Your task to perform on an android device: turn on javascript in the chrome app Image 0: 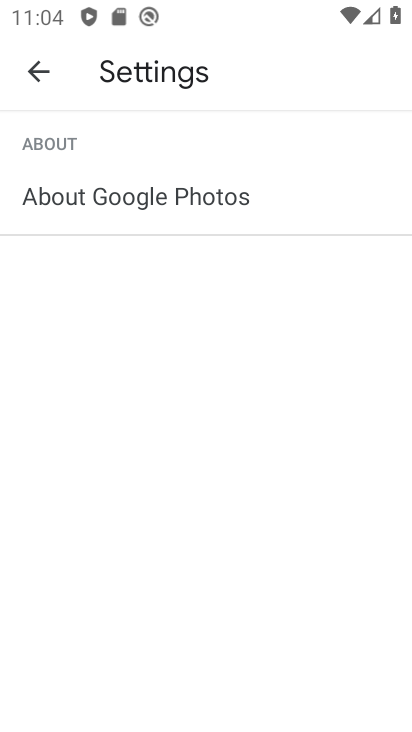
Step 0: press home button
Your task to perform on an android device: turn on javascript in the chrome app Image 1: 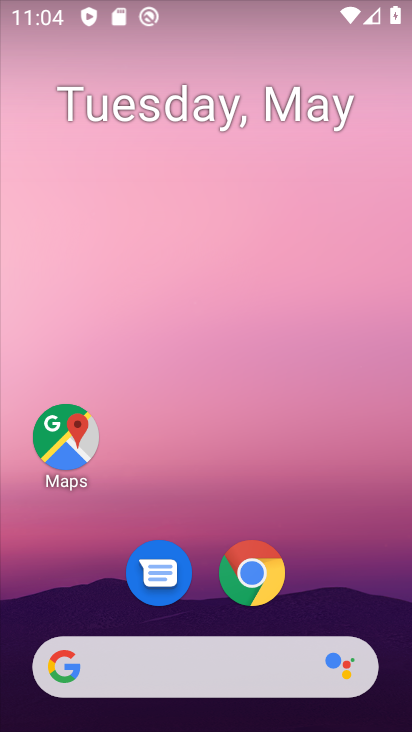
Step 1: drag from (303, 645) to (243, 185)
Your task to perform on an android device: turn on javascript in the chrome app Image 2: 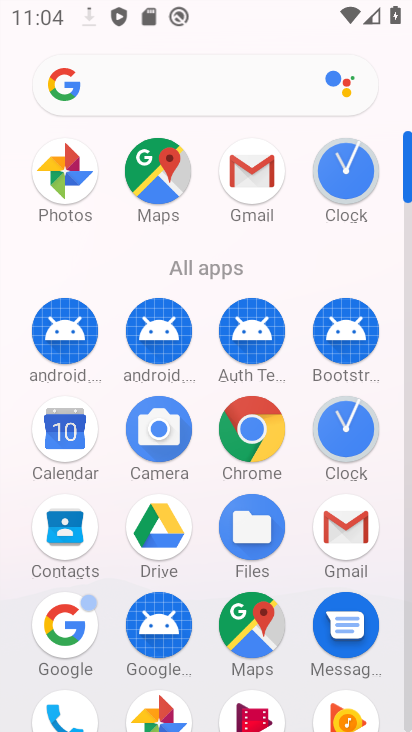
Step 2: click (255, 424)
Your task to perform on an android device: turn on javascript in the chrome app Image 3: 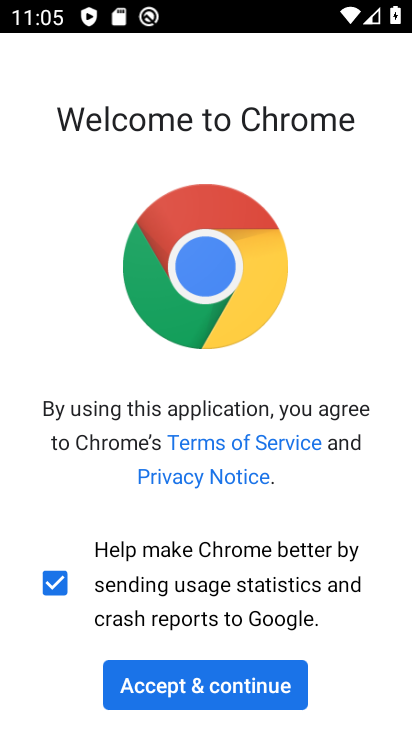
Step 3: click (179, 683)
Your task to perform on an android device: turn on javascript in the chrome app Image 4: 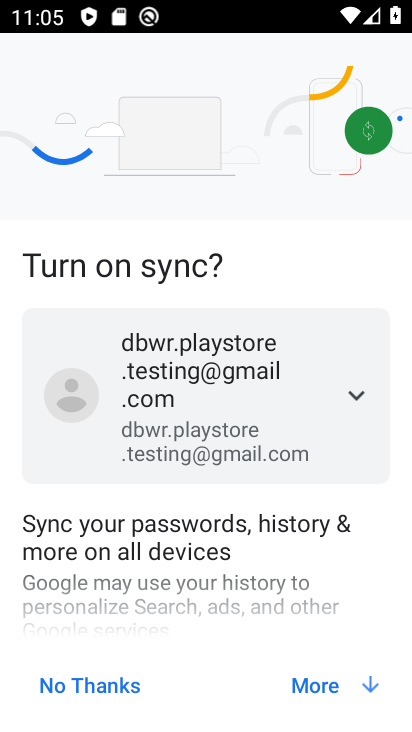
Step 4: click (362, 676)
Your task to perform on an android device: turn on javascript in the chrome app Image 5: 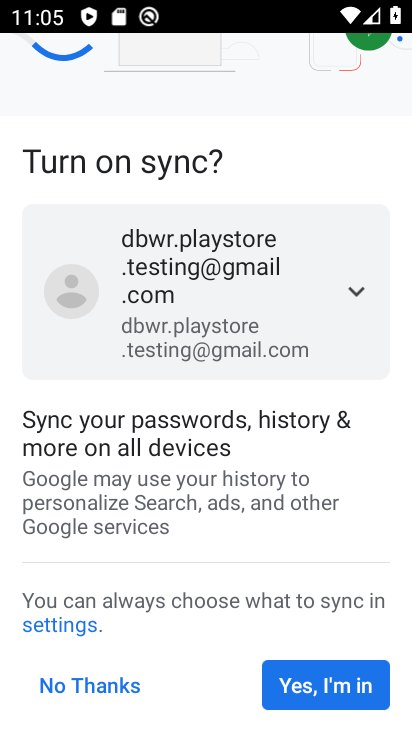
Step 5: click (346, 674)
Your task to perform on an android device: turn on javascript in the chrome app Image 6: 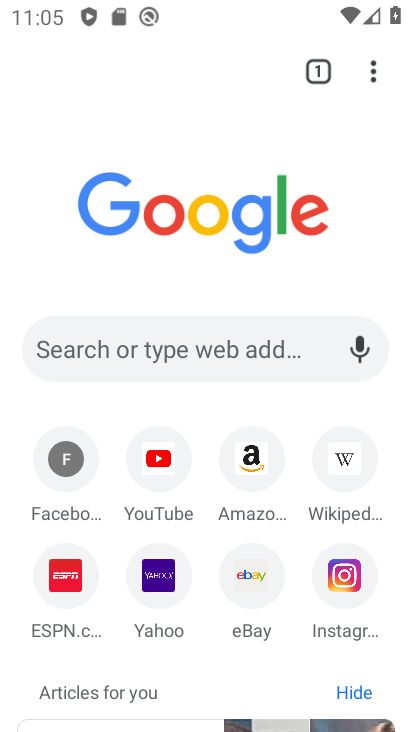
Step 6: click (370, 64)
Your task to perform on an android device: turn on javascript in the chrome app Image 7: 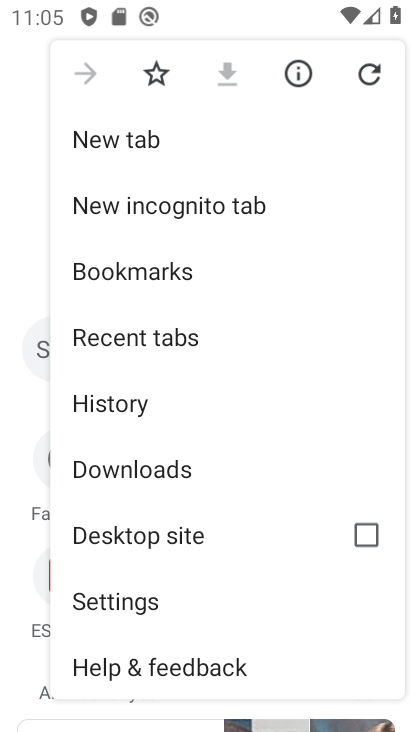
Step 7: click (135, 589)
Your task to perform on an android device: turn on javascript in the chrome app Image 8: 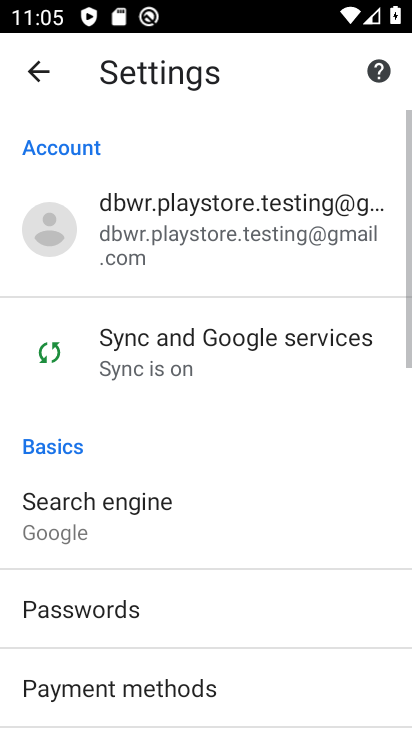
Step 8: drag from (146, 577) to (162, 330)
Your task to perform on an android device: turn on javascript in the chrome app Image 9: 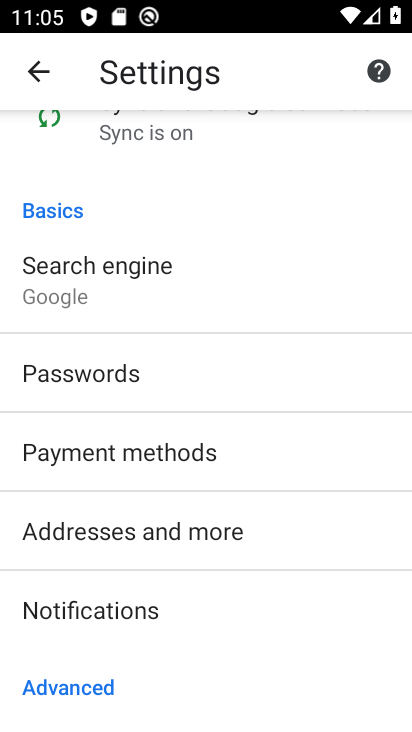
Step 9: drag from (140, 607) to (239, 237)
Your task to perform on an android device: turn on javascript in the chrome app Image 10: 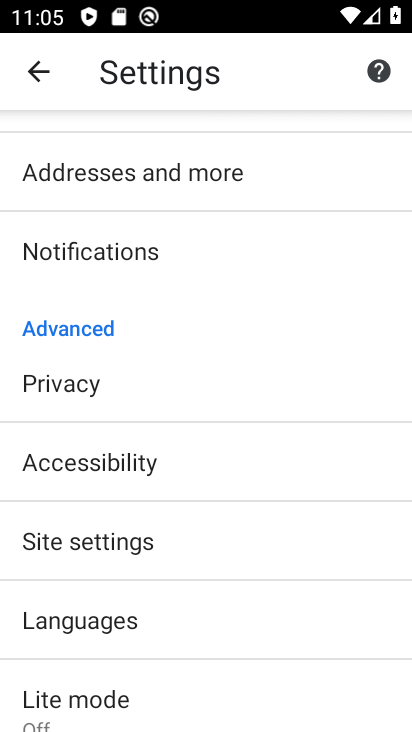
Step 10: click (129, 534)
Your task to perform on an android device: turn on javascript in the chrome app Image 11: 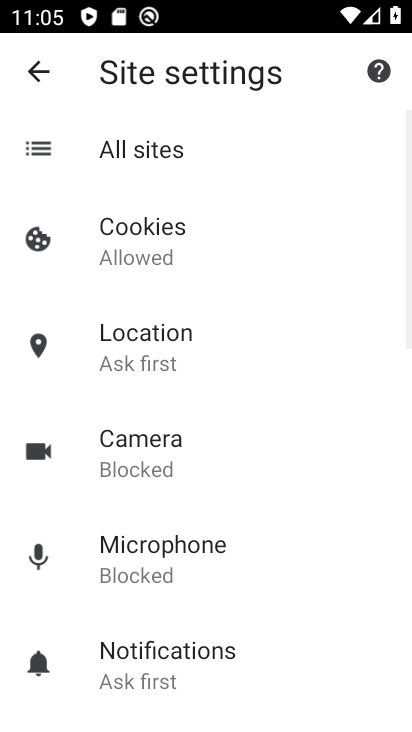
Step 11: drag from (168, 621) to (269, 260)
Your task to perform on an android device: turn on javascript in the chrome app Image 12: 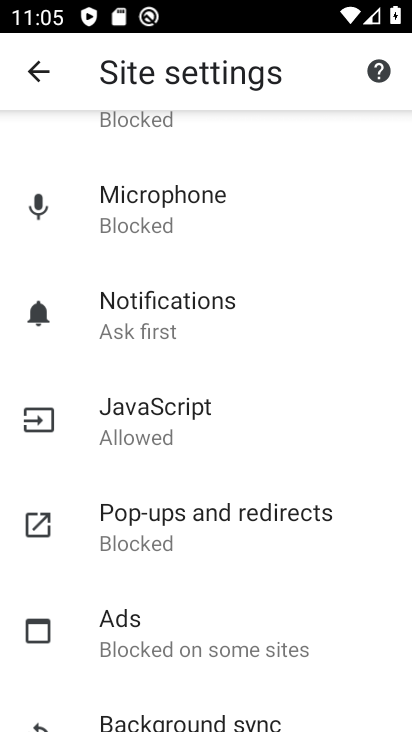
Step 12: click (190, 415)
Your task to perform on an android device: turn on javascript in the chrome app Image 13: 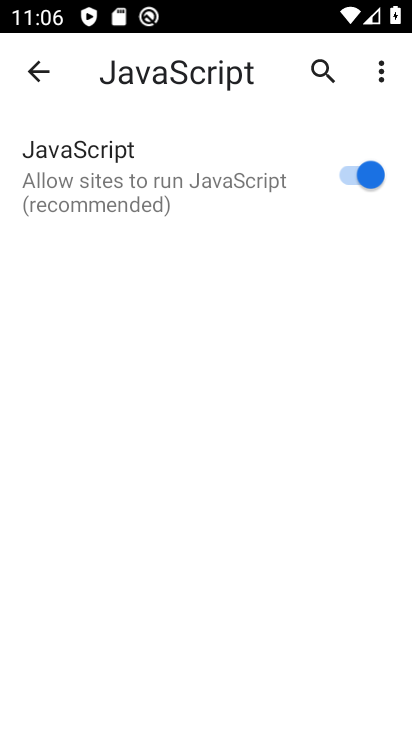
Step 13: click (351, 179)
Your task to perform on an android device: turn on javascript in the chrome app Image 14: 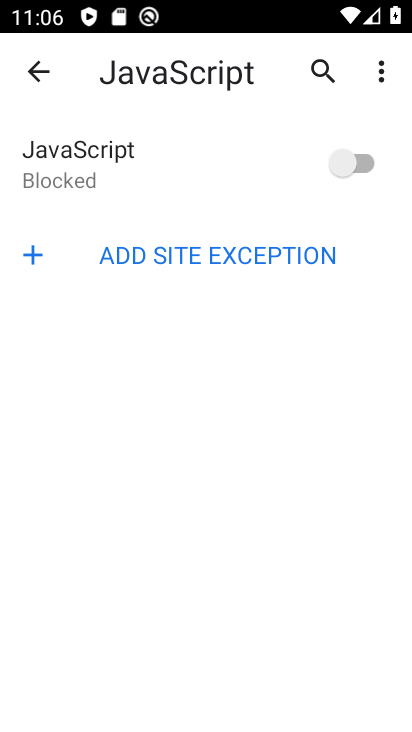
Step 14: click (351, 178)
Your task to perform on an android device: turn on javascript in the chrome app Image 15: 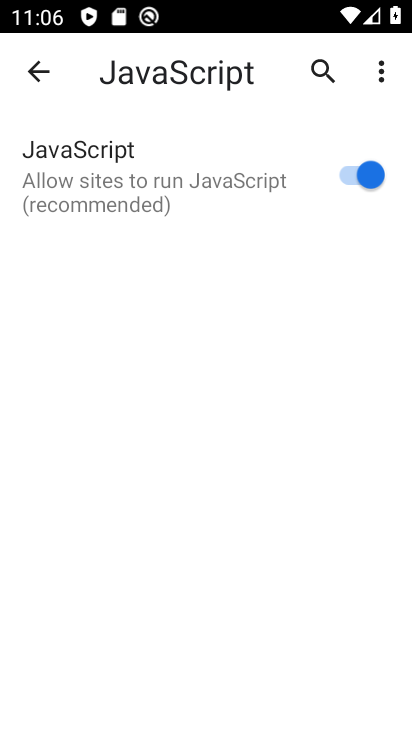
Step 15: task complete